Your task to perform on an android device: Open Google Chrome and click the shortcut for Amazon.com Image 0: 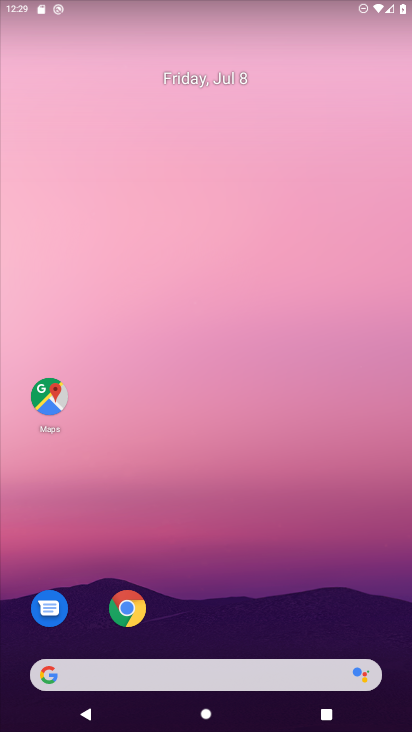
Step 0: click (127, 606)
Your task to perform on an android device: Open Google Chrome and click the shortcut for Amazon.com Image 1: 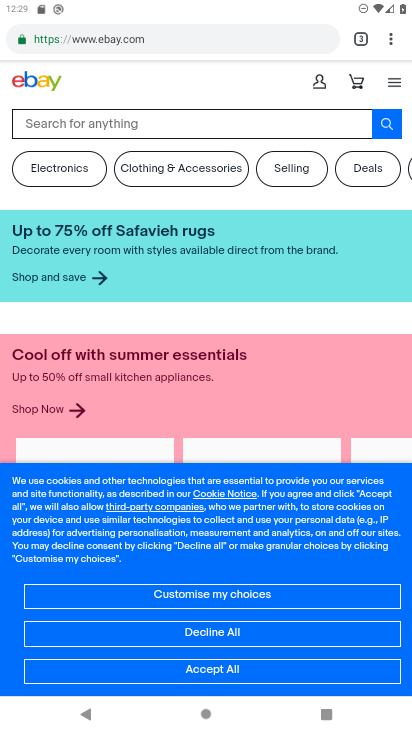
Step 1: click (392, 42)
Your task to perform on an android device: Open Google Chrome and click the shortcut for Amazon.com Image 2: 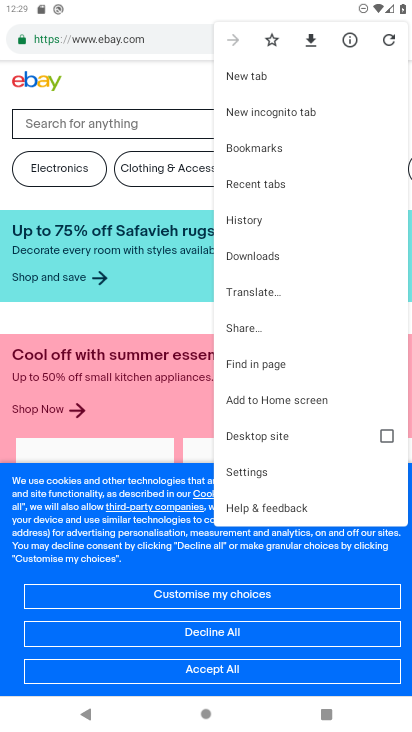
Step 2: click (247, 74)
Your task to perform on an android device: Open Google Chrome and click the shortcut for Amazon.com Image 3: 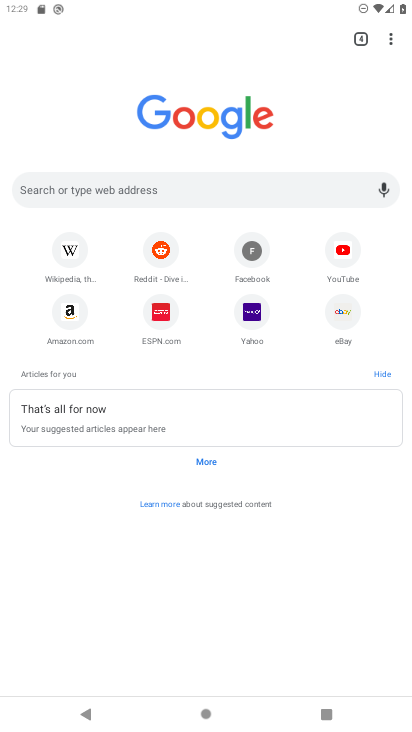
Step 3: click (65, 313)
Your task to perform on an android device: Open Google Chrome and click the shortcut for Amazon.com Image 4: 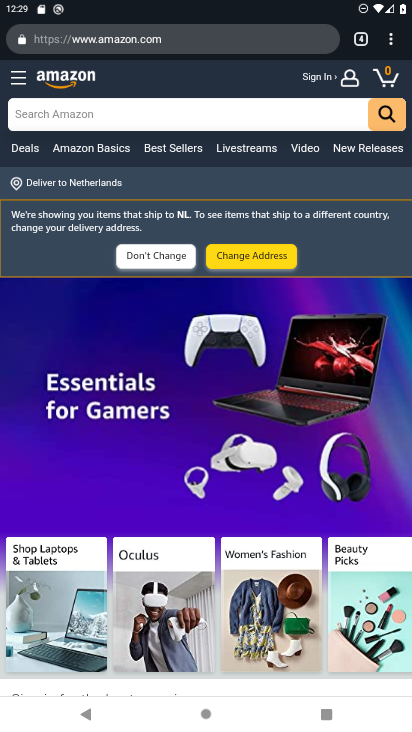
Step 4: task complete